Your task to perform on an android device: turn off wifi Image 0: 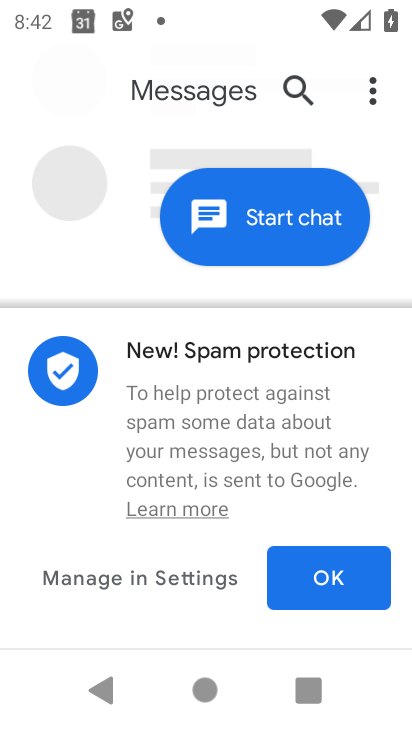
Step 0: press home button
Your task to perform on an android device: turn off wifi Image 1: 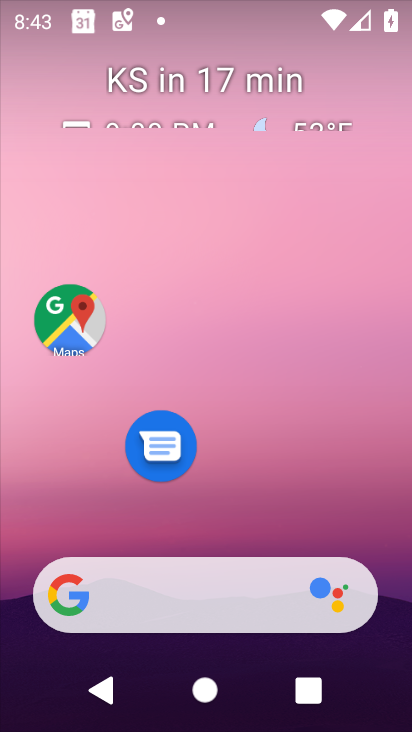
Step 1: drag from (221, 537) to (237, 15)
Your task to perform on an android device: turn off wifi Image 2: 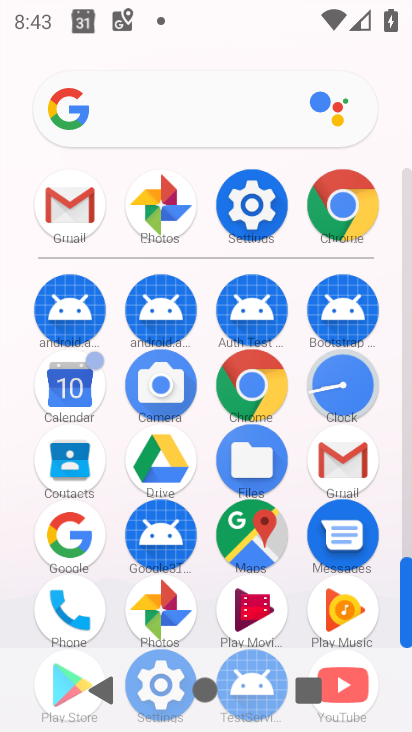
Step 2: click (265, 208)
Your task to perform on an android device: turn off wifi Image 3: 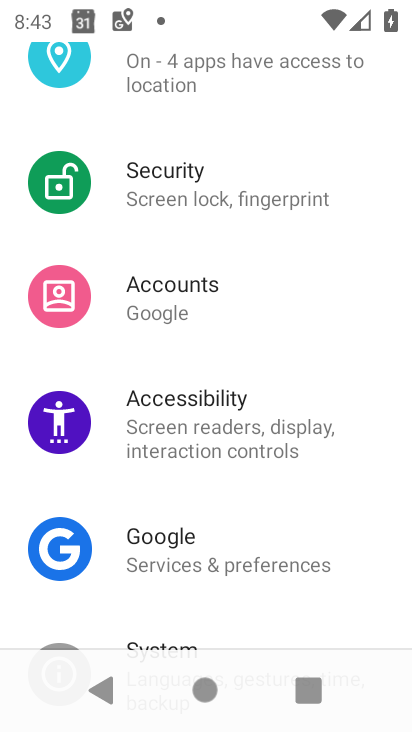
Step 3: drag from (239, 149) to (201, 628)
Your task to perform on an android device: turn off wifi Image 4: 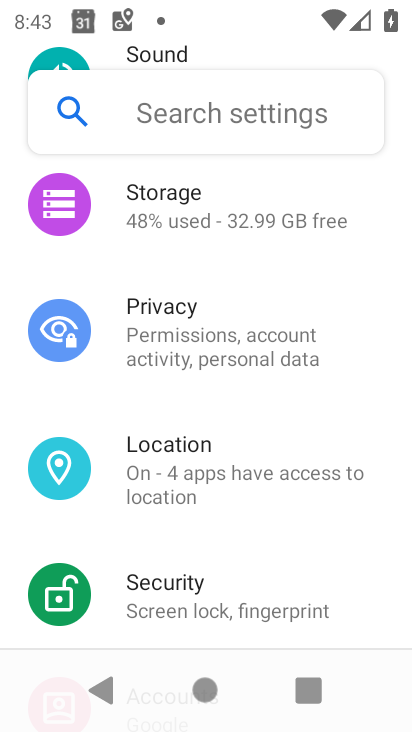
Step 4: drag from (249, 216) to (234, 671)
Your task to perform on an android device: turn off wifi Image 5: 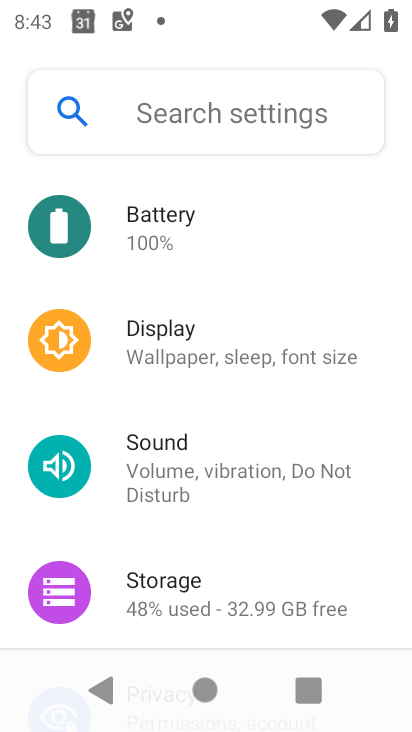
Step 5: drag from (255, 249) to (244, 651)
Your task to perform on an android device: turn off wifi Image 6: 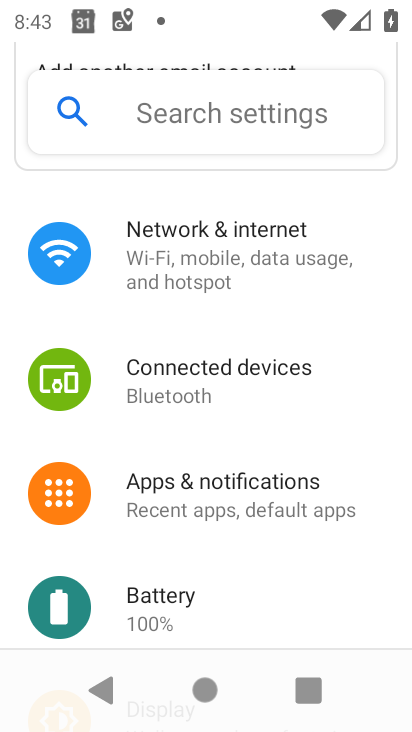
Step 6: click (213, 263)
Your task to perform on an android device: turn off wifi Image 7: 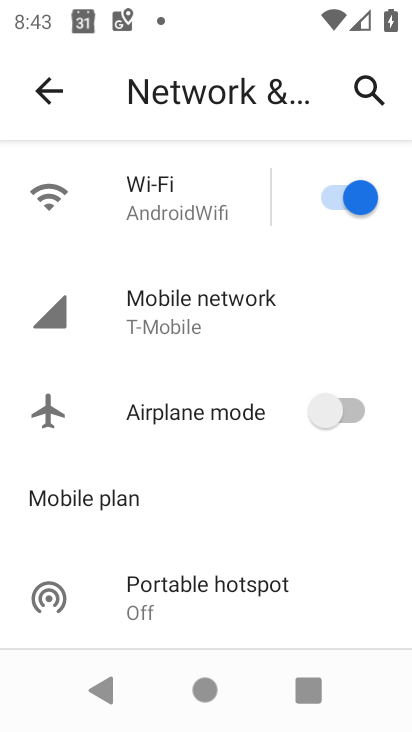
Step 7: click (345, 200)
Your task to perform on an android device: turn off wifi Image 8: 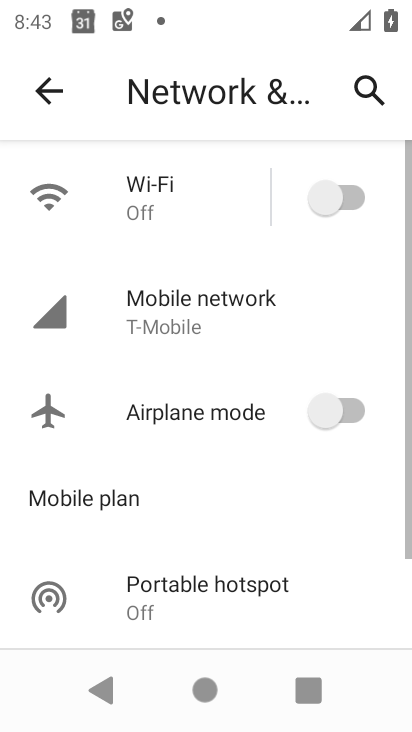
Step 8: task complete